Your task to perform on an android device: turn off javascript in the chrome app Image 0: 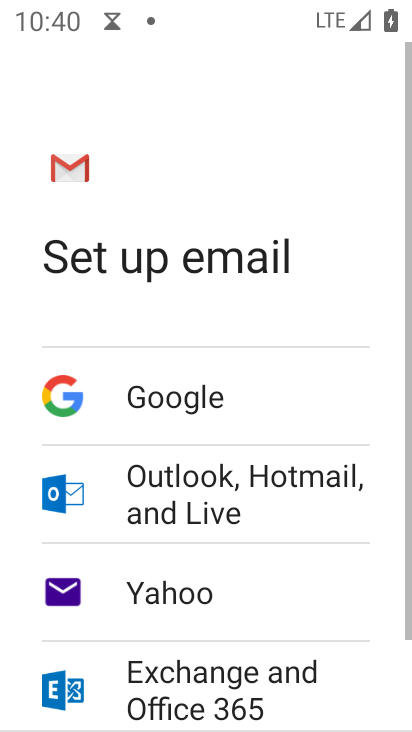
Step 0: press home button
Your task to perform on an android device: turn off javascript in the chrome app Image 1: 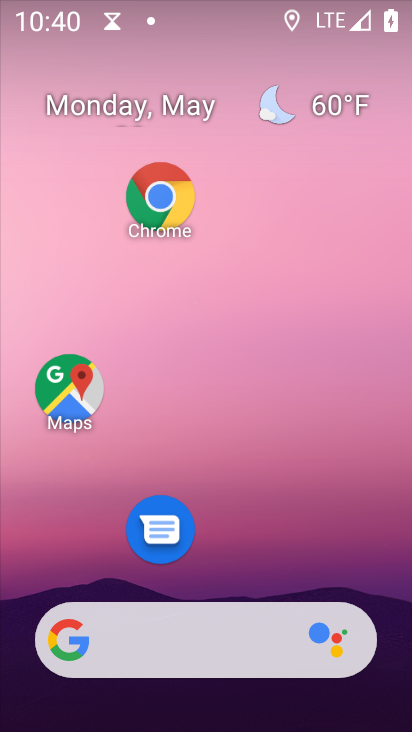
Step 1: drag from (217, 569) to (242, 147)
Your task to perform on an android device: turn off javascript in the chrome app Image 2: 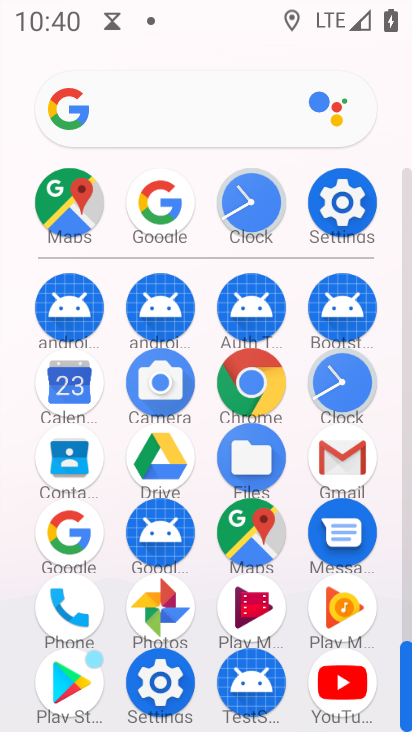
Step 2: click (251, 388)
Your task to perform on an android device: turn off javascript in the chrome app Image 3: 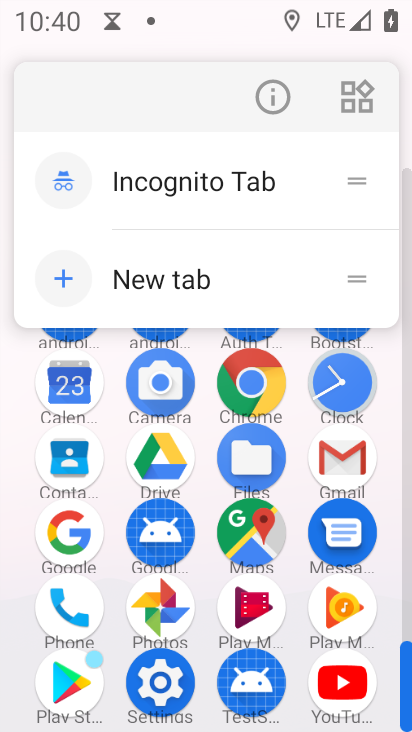
Step 3: click (251, 382)
Your task to perform on an android device: turn off javascript in the chrome app Image 4: 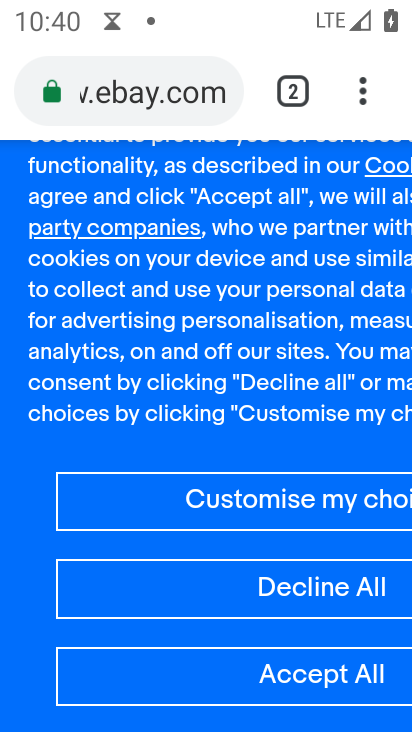
Step 4: click (364, 103)
Your task to perform on an android device: turn off javascript in the chrome app Image 5: 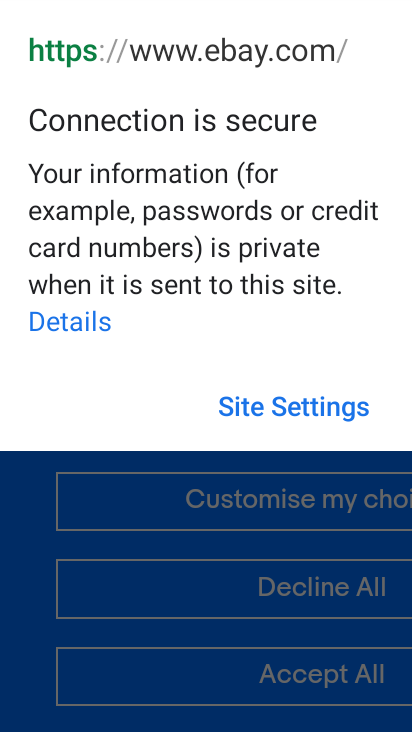
Step 5: click (28, 552)
Your task to perform on an android device: turn off javascript in the chrome app Image 6: 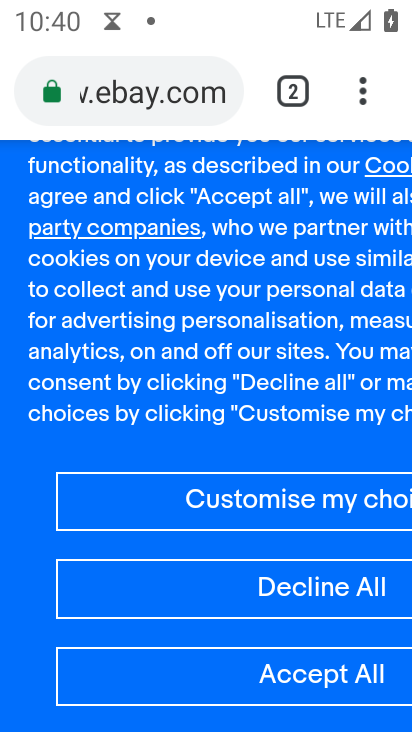
Step 6: click (361, 95)
Your task to perform on an android device: turn off javascript in the chrome app Image 7: 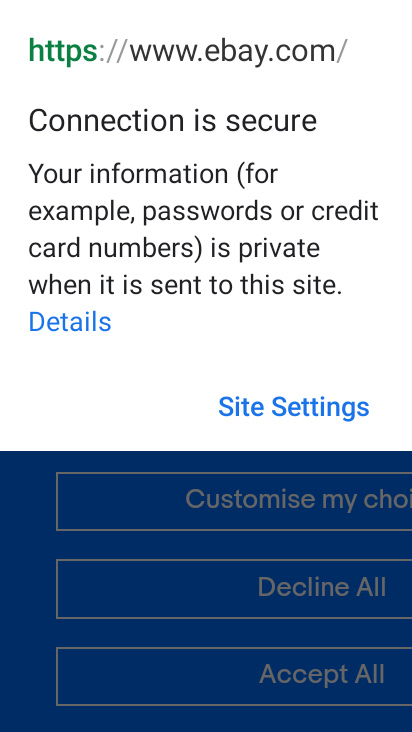
Step 7: click (18, 537)
Your task to perform on an android device: turn off javascript in the chrome app Image 8: 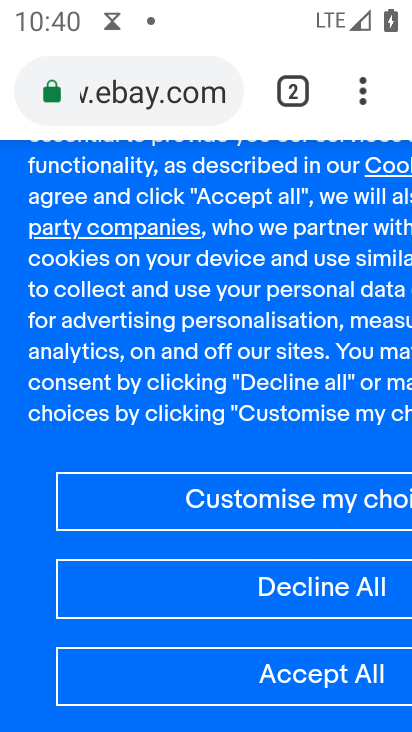
Step 8: click (363, 91)
Your task to perform on an android device: turn off javascript in the chrome app Image 9: 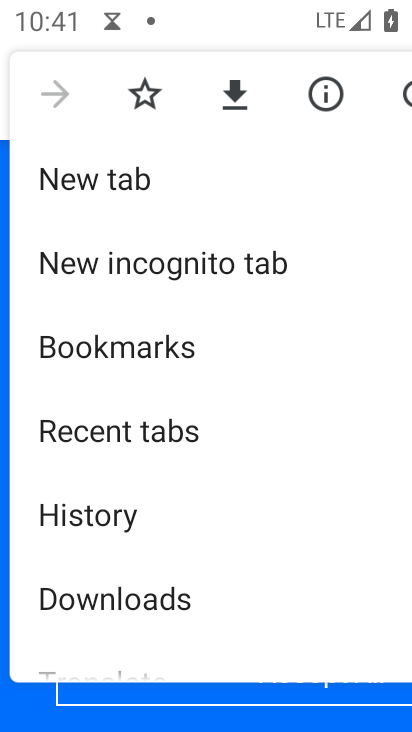
Step 9: drag from (188, 575) to (187, 239)
Your task to perform on an android device: turn off javascript in the chrome app Image 10: 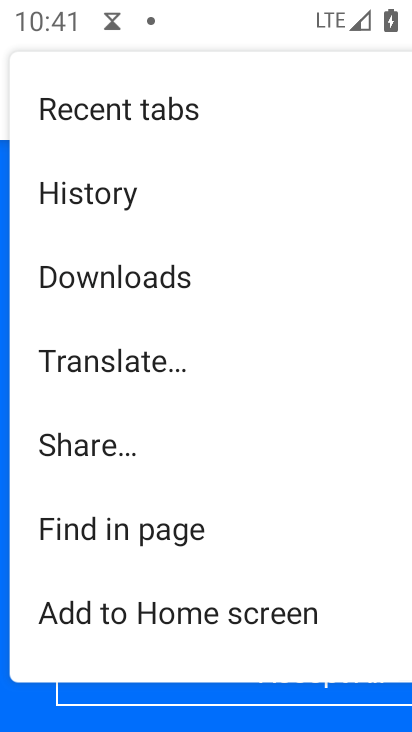
Step 10: drag from (167, 604) to (220, 341)
Your task to perform on an android device: turn off javascript in the chrome app Image 11: 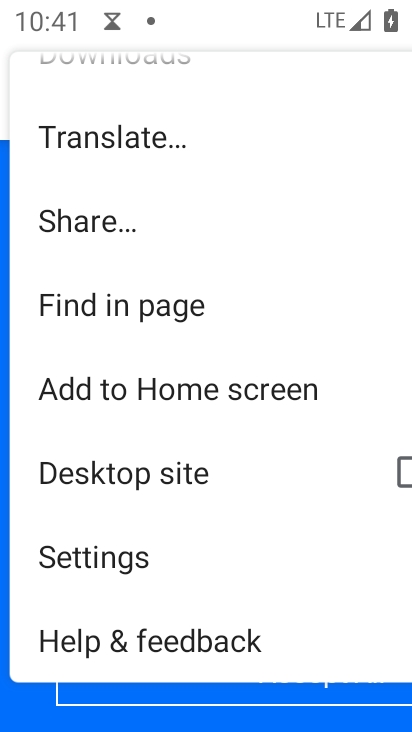
Step 11: click (95, 560)
Your task to perform on an android device: turn off javascript in the chrome app Image 12: 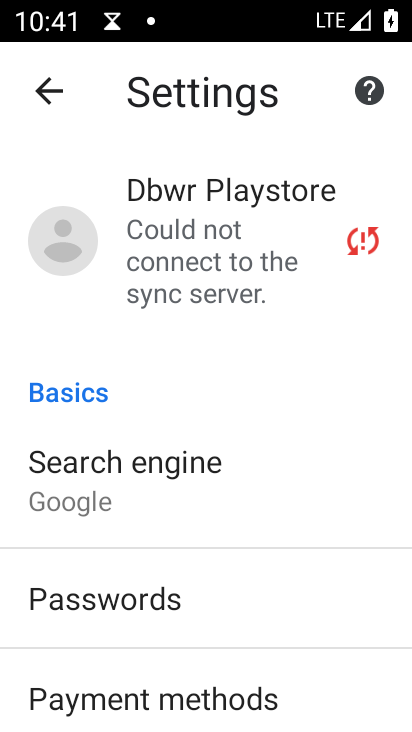
Step 12: drag from (245, 433) to (253, 284)
Your task to perform on an android device: turn off javascript in the chrome app Image 13: 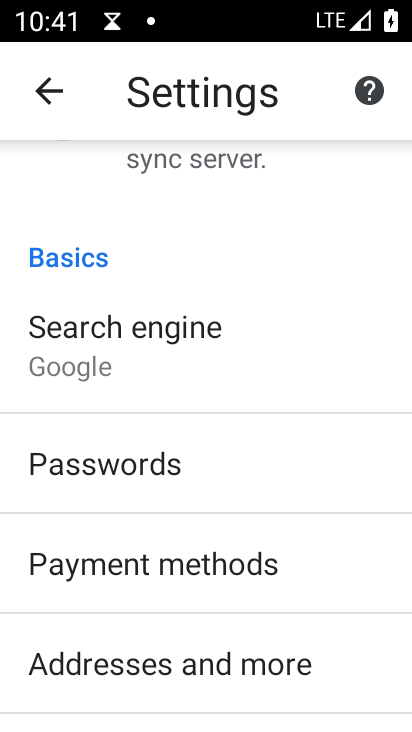
Step 13: drag from (198, 339) to (202, 208)
Your task to perform on an android device: turn off javascript in the chrome app Image 14: 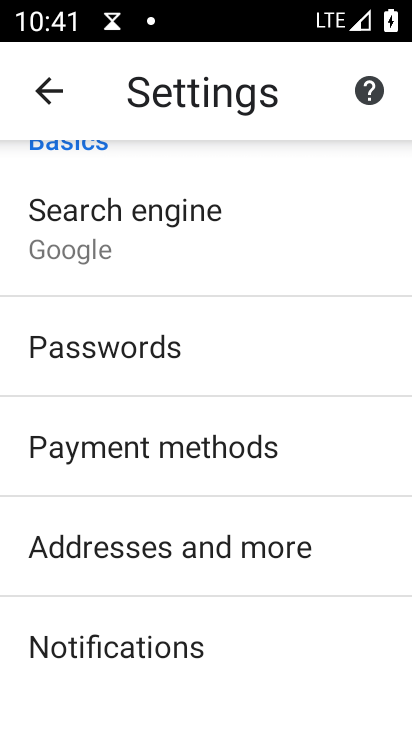
Step 14: drag from (166, 632) to (203, 382)
Your task to perform on an android device: turn off javascript in the chrome app Image 15: 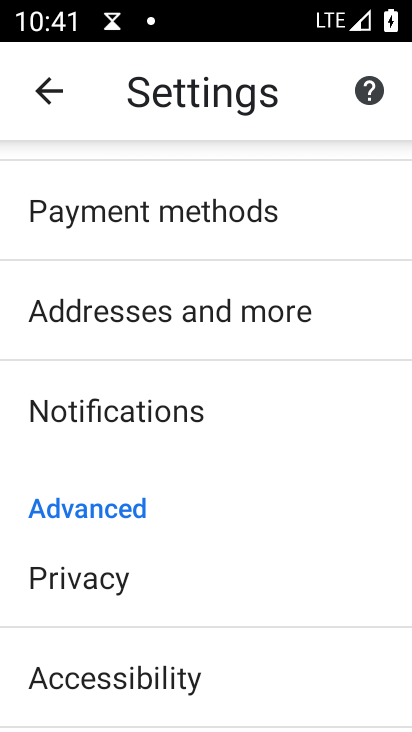
Step 15: click (245, 648)
Your task to perform on an android device: turn off javascript in the chrome app Image 16: 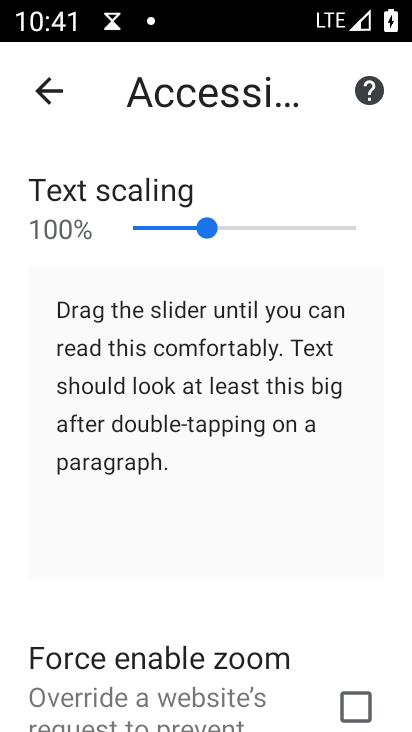
Step 16: click (48, 102)
Your task to perform on an android device: turn off javascript in the chrome app Image 17: 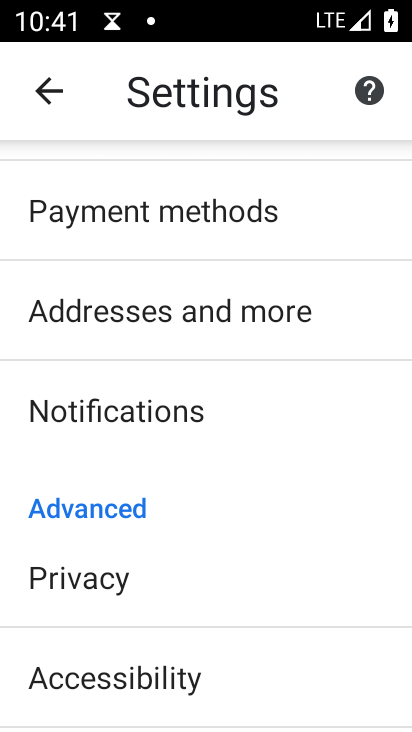
Step 17: drag from (197, 666) to (245, 439)
Your task to perform on an android device: turn off javascript in the chrome app Image 18: 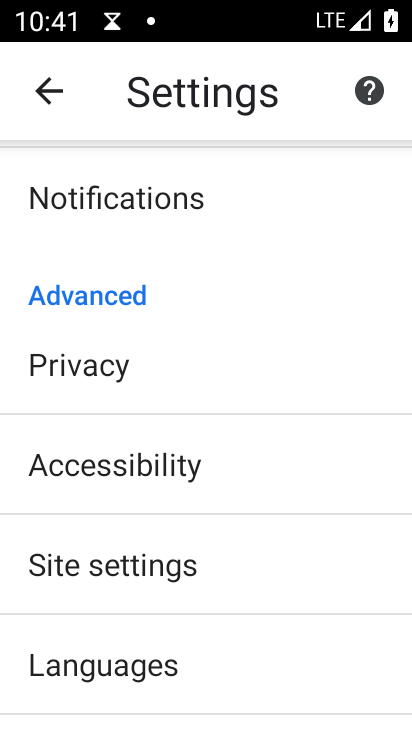
Step 18: click (154, 559)
Your task to perform on an android device: turn off javascript in the chrome app Image 19: 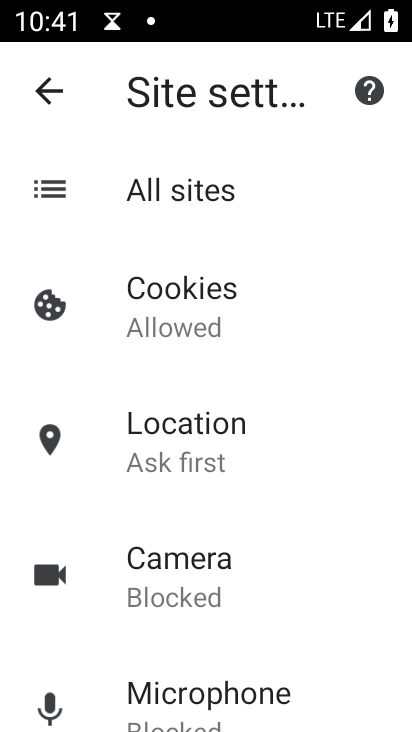
Step 19: drag from (198, 542) to (217, 408)
Your task to perform on an android device: turn off javascript in the chrome app Image 20: 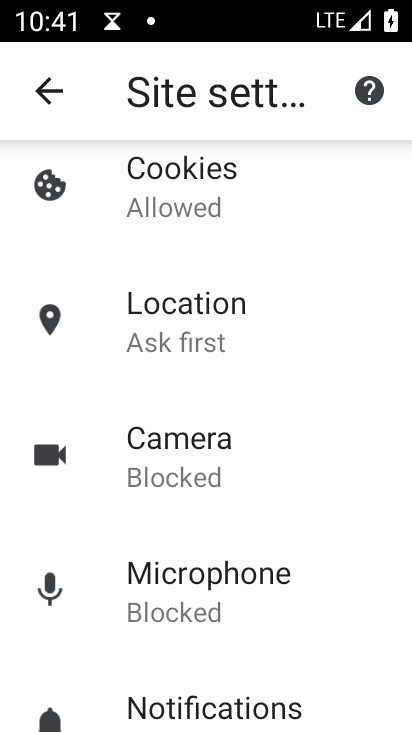
Step 20: drag from (216, 704) to (252, 424)
Your task to perform on an android device: turn off javascript in the chrome app Image 21: 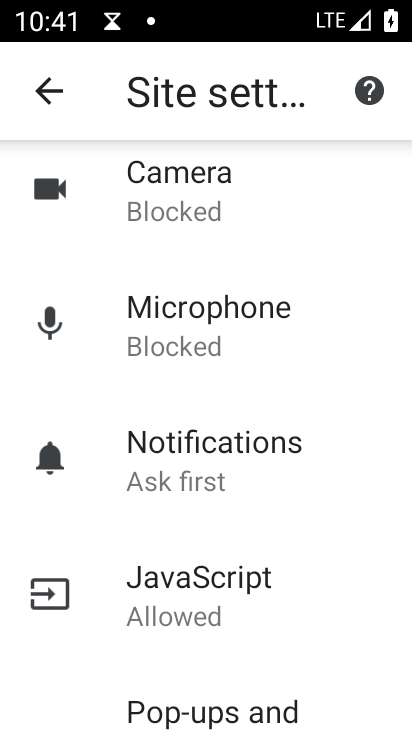
Step 21: click (164, 608)
Your task to perform on an android device: turn off javascript in the chrome app Image 22: 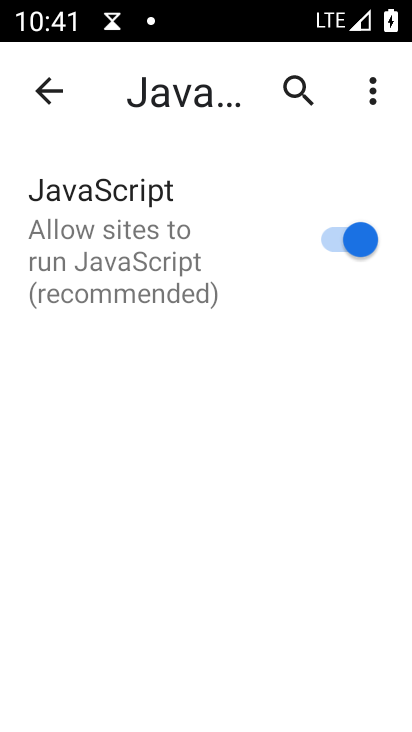
Step 22: click (328, 240)
Your task to perform on an android device: turn off javascript in the chrome app Image 23: 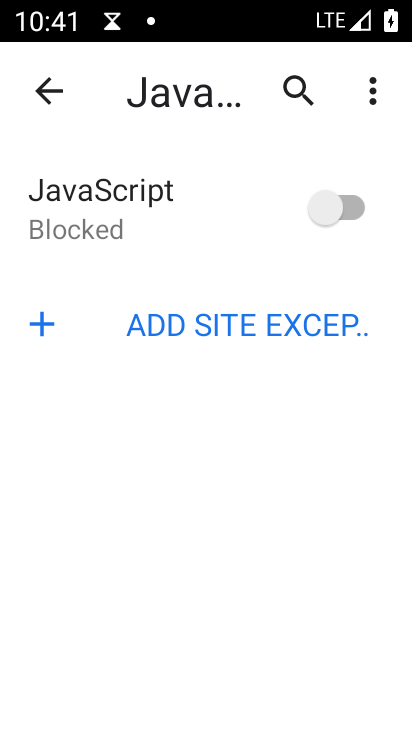
Step 23: task complete